Your task to perform on an android device: Find coffee shops on Maps Image 0: 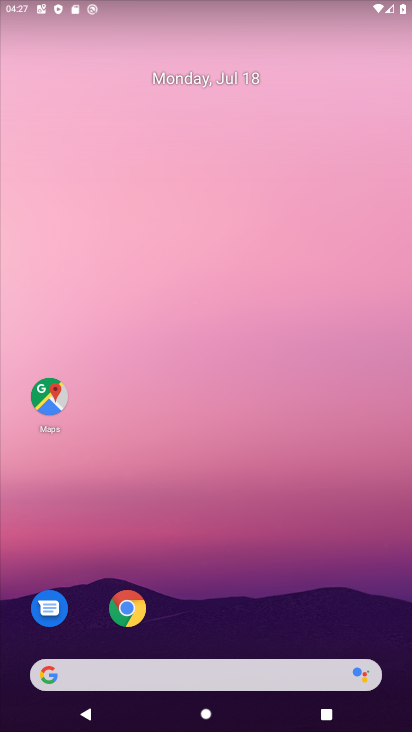
Step 0: click (67, 403)
Your task to perform on an android device: Find coffee shops on Maps Image 1: 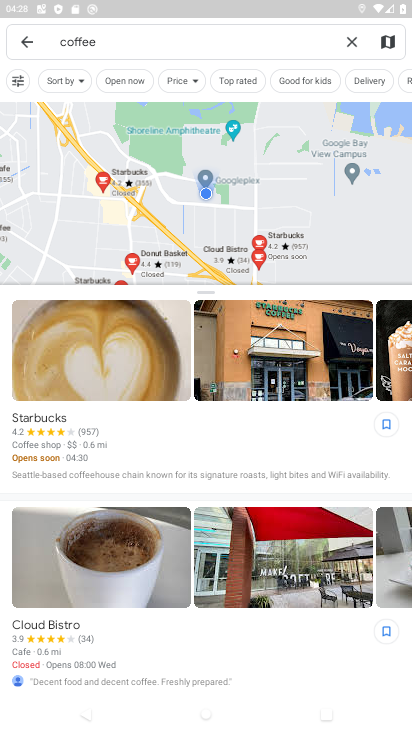
Step 1: task complete